Your task to perform on an android device: Open the calendar app, open the side menu, and click the "Day" option Image 0: 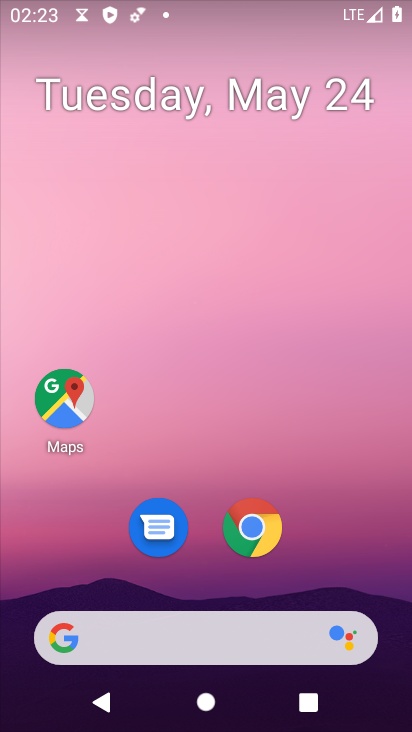
Step 0: drag from (221, 612) to (290, 70)
Your task to perform on an android device: Open the calendar app, open the side menu, and click the "Day" option Image 1: 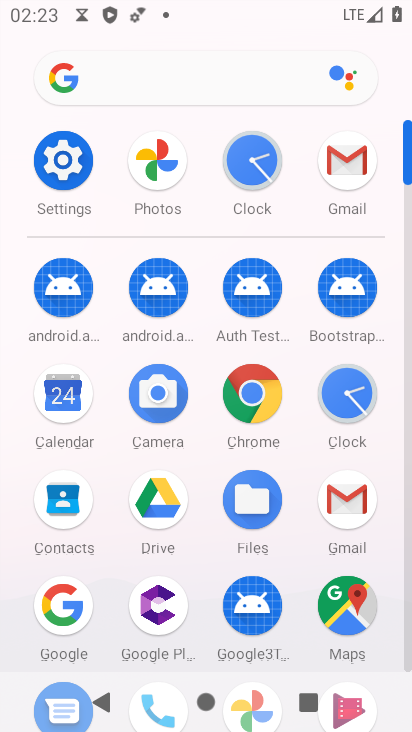
Step 1: click (78, 384)
Your task to perform on an android device: Open the calendar app, open the side menu, and click the "Day" option Image 2: 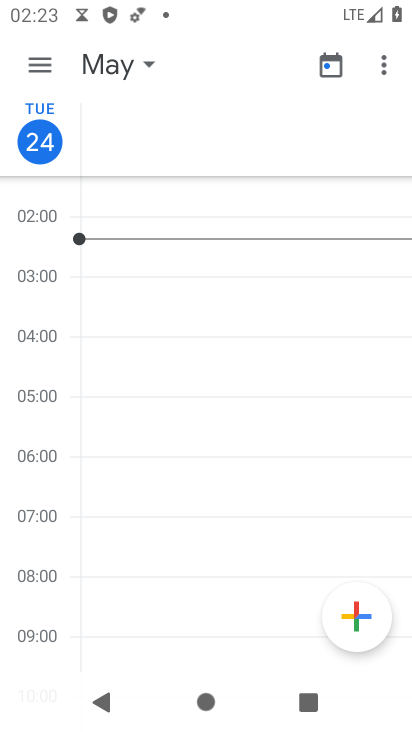
Step 2: click (52, 68)
Your task to perform on an android device: Open the calendar app, open the side menu, and click the "Day" option Image 3: 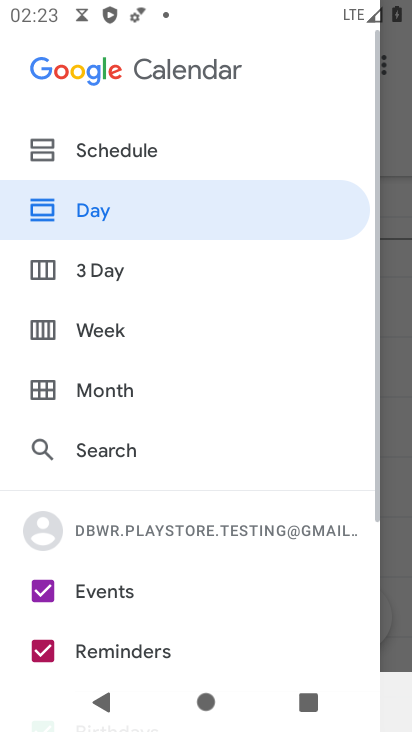
Step 3: click (90, 219)
Your task to perform on an android device: Open the calendar app, open the side menu, and click the "Day" option Image 4: 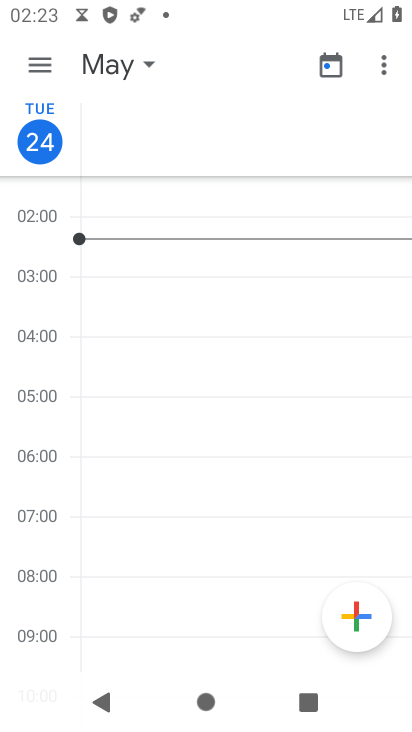
Step 4: task complete